Your task to perform on an android device: install app "Spotify: Music and Podcasts" Image 0: 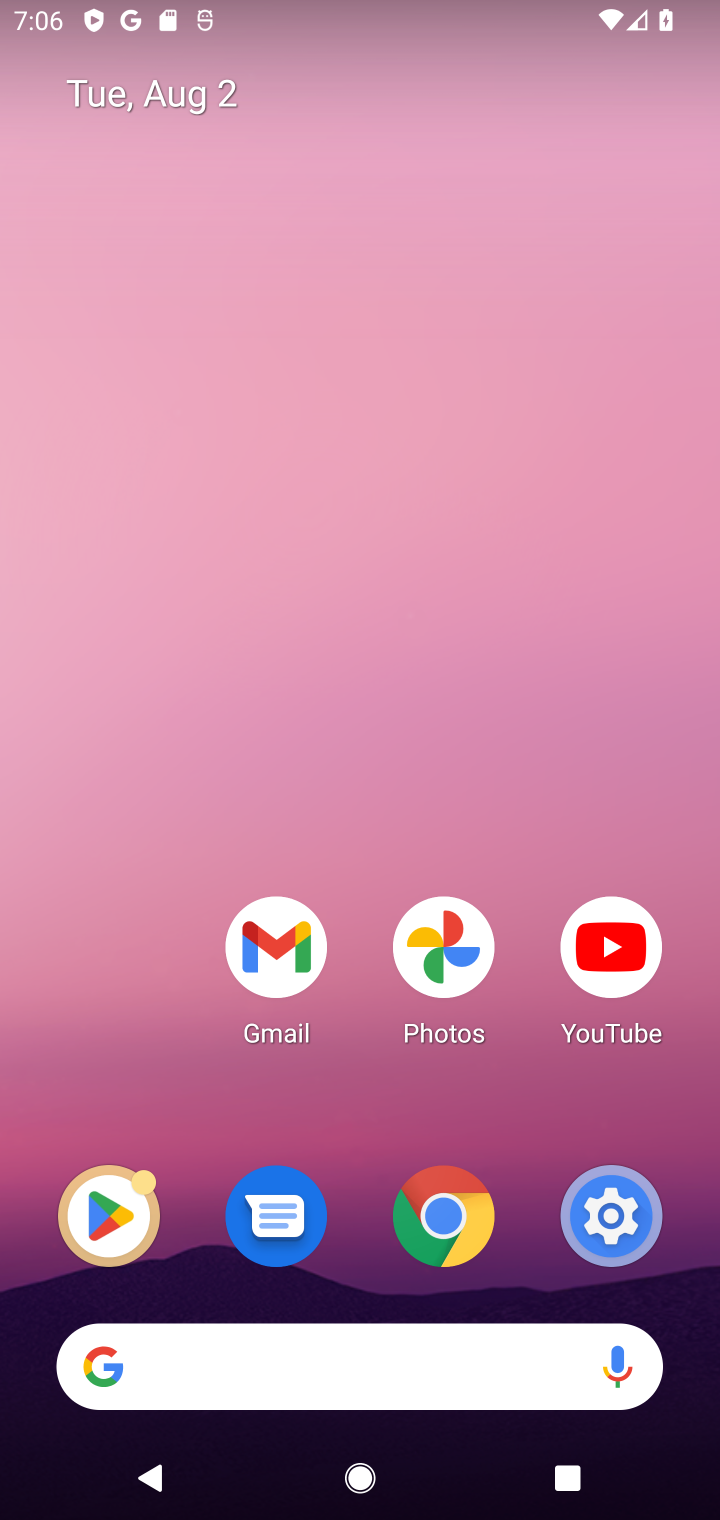
Step 0: drag from (447, 1295) to (346, 149)
Your task to perform on an android device: install app "Spotify: Music and Podcasts" Image 1: 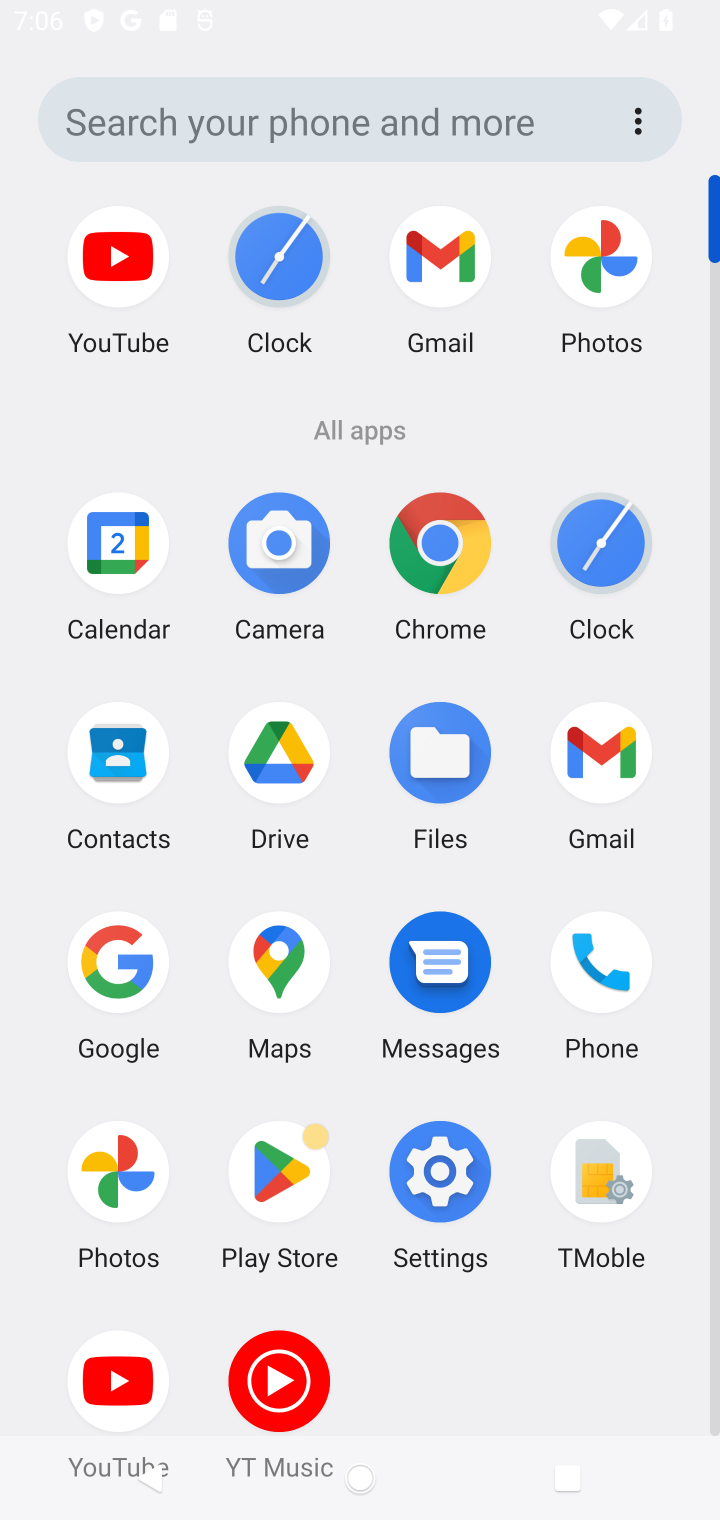
Step 1: drag from (262, 1101) to (272, 241)
Your task to perform on an android device: install app "Spotify: Music and Podcasts" Image 2: 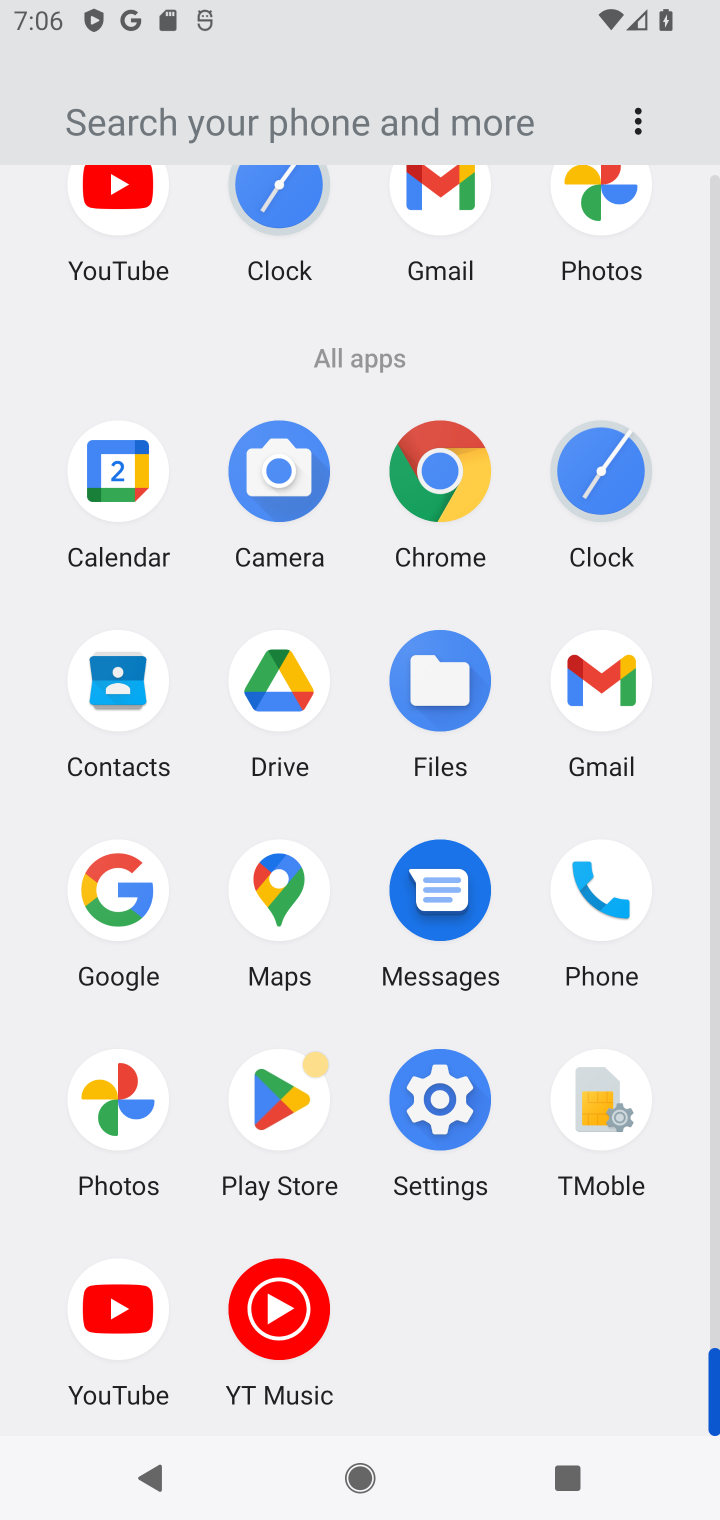
Step 2: click (313, 1106)
Your task to perform on an android device: install app "Spotify: Music and Podcasts" Image 3: 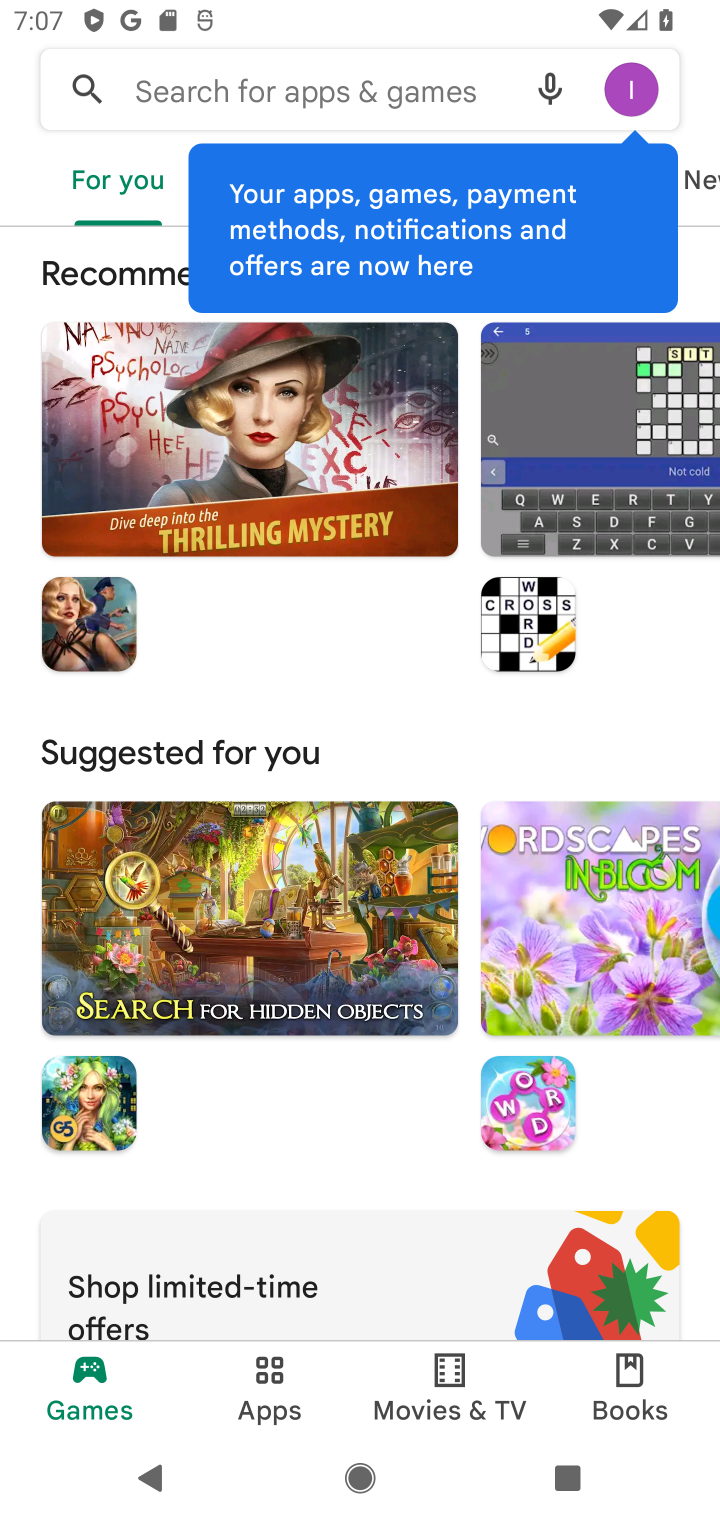
Step 3: click (165, 94)
Your task to perform on an android device: install app "Spotify: Music and Podcasts" Image 4: 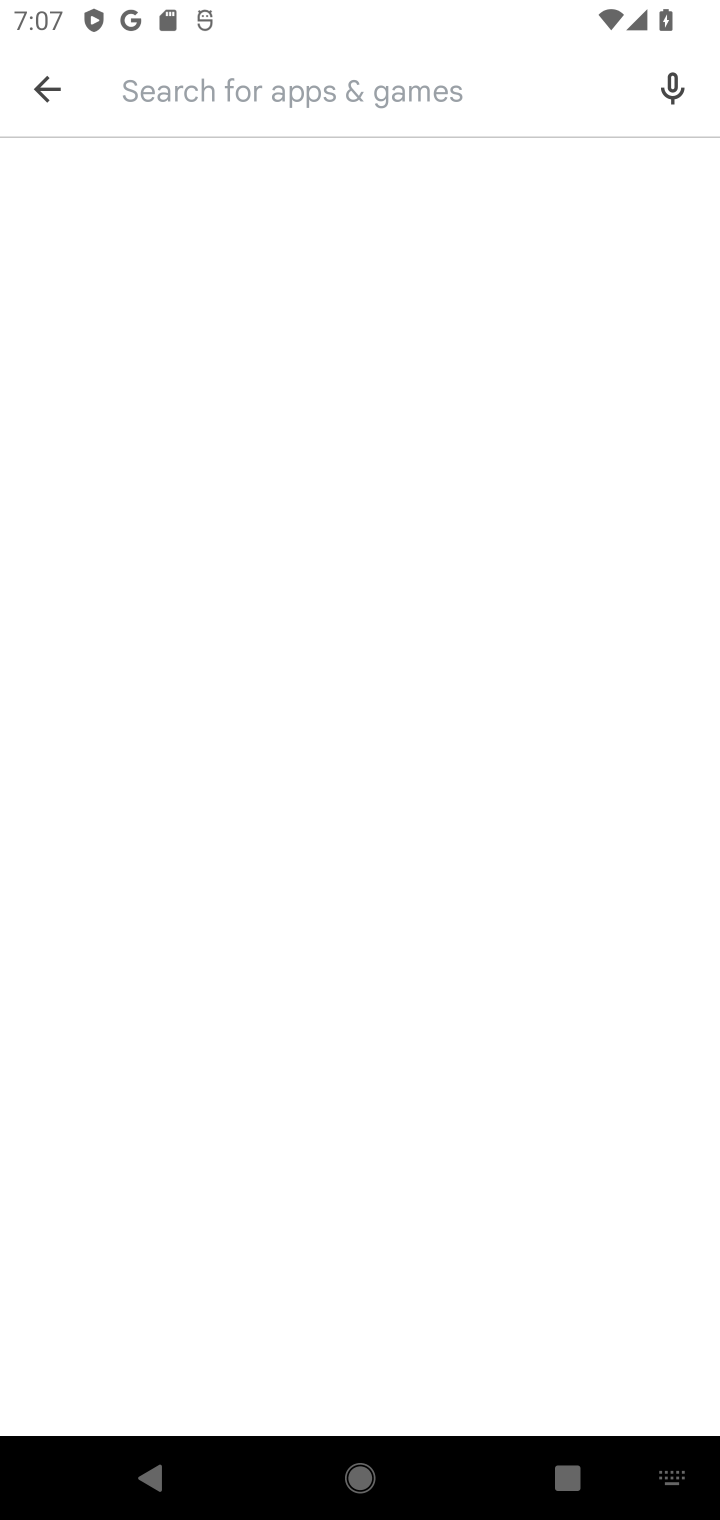
Step 4: type "Spotify: Music and Podcasts"
Your task to perform on an android device: install app "Spotify: Music and Podcasts" Image 5: 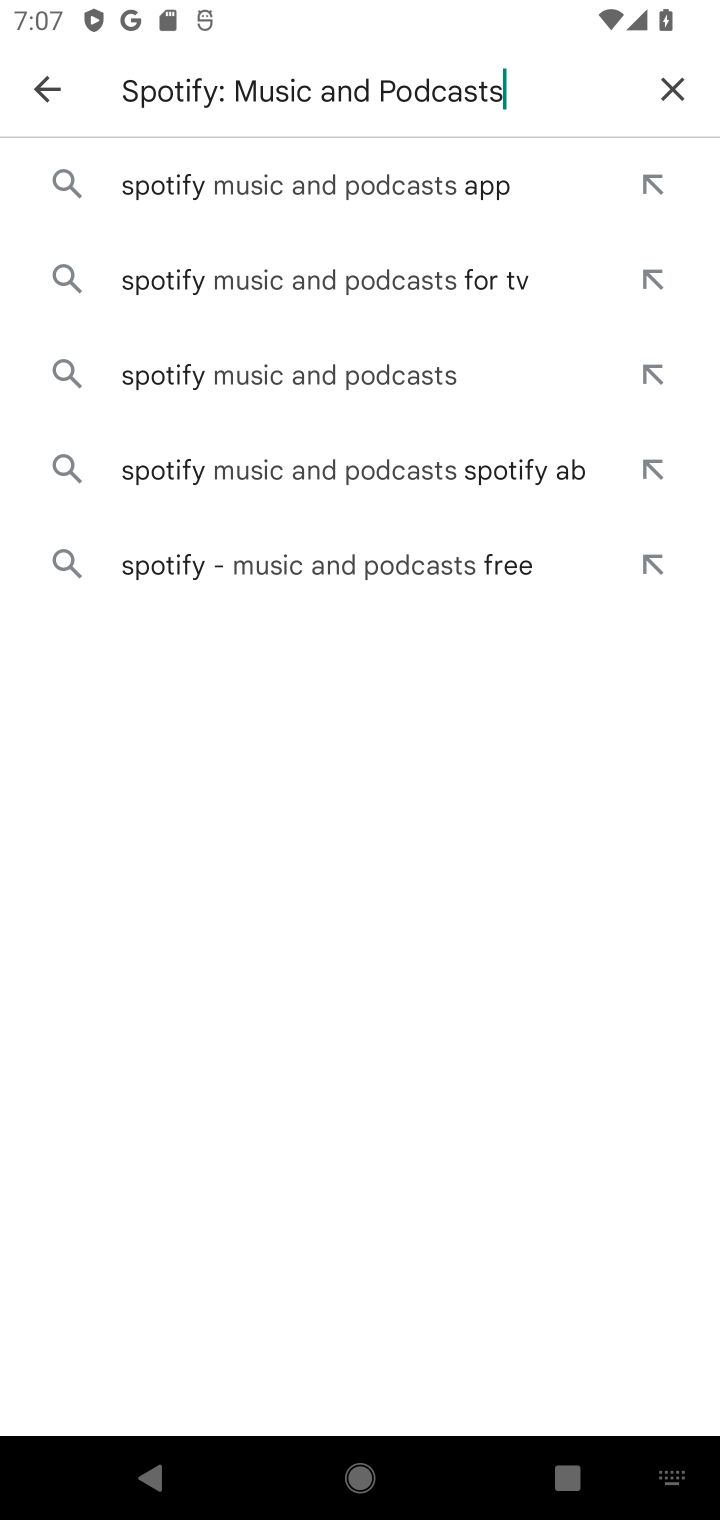
Step 5: click (371, 191)
Your task to perform on an android device: install app "Spotify: Music and Podcasts" Image 6: 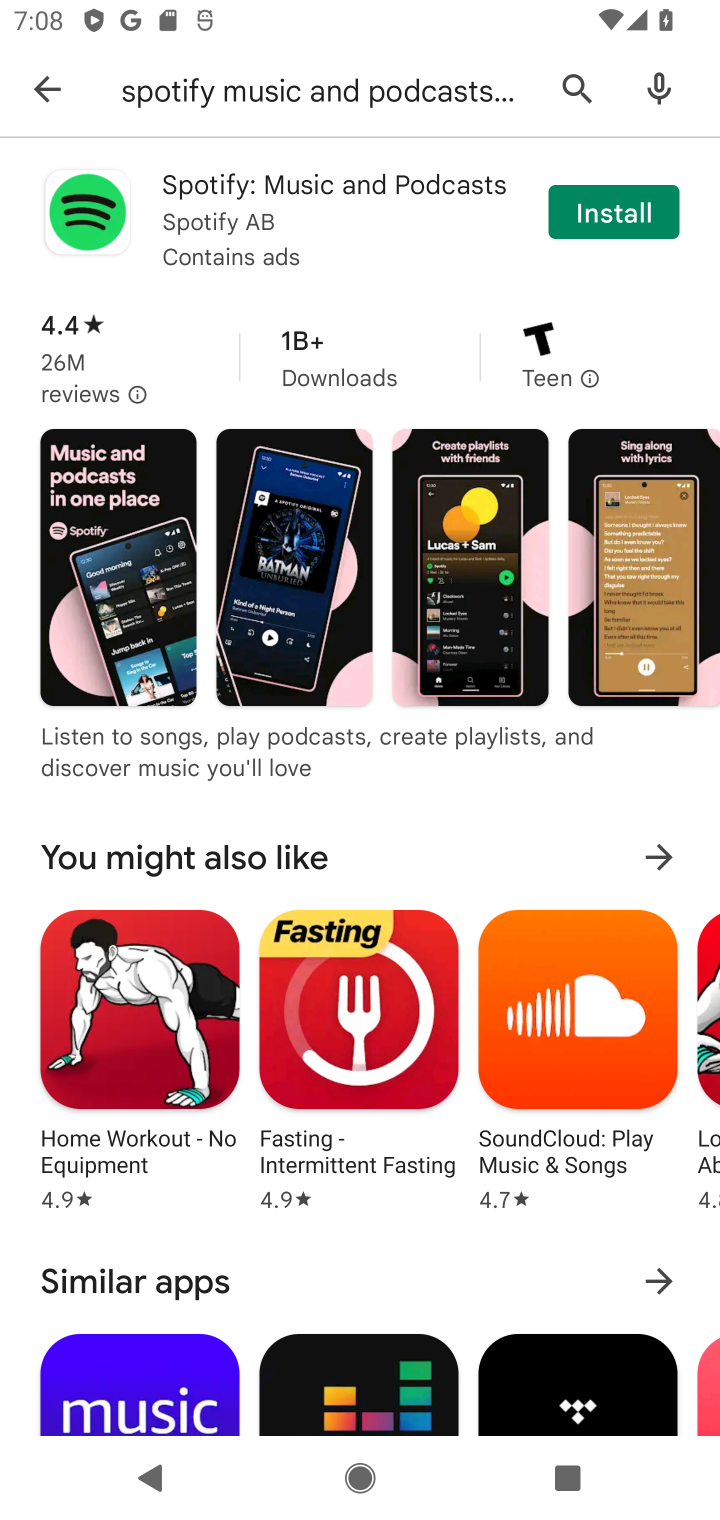
Step 6: click (621, 205)
Your task to perform on an android device: install app "Spotify: Music and Podcasts" Image 7: 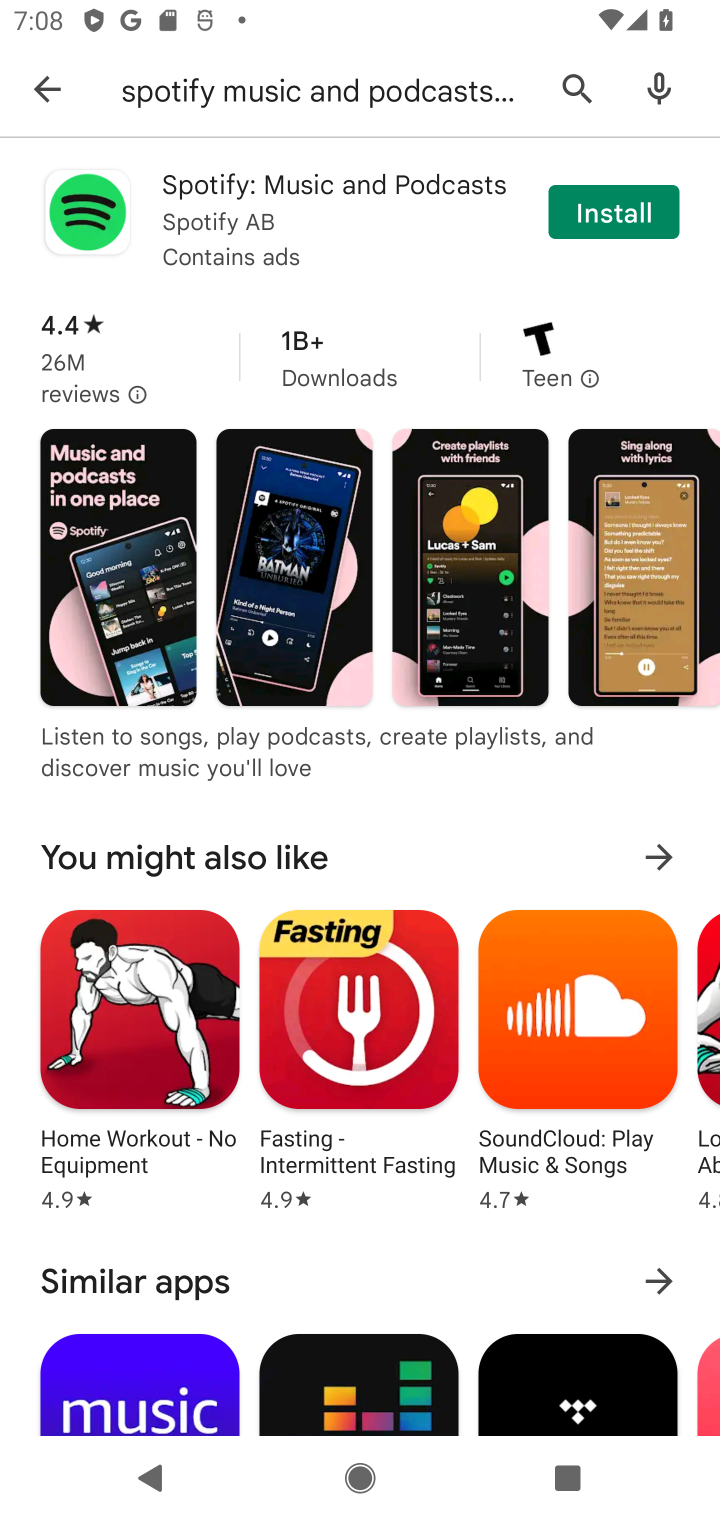
Step 7: click (636, 212)
Your task to perform on an android device: install app "Spotify: Music and Podcasts" Image 8: 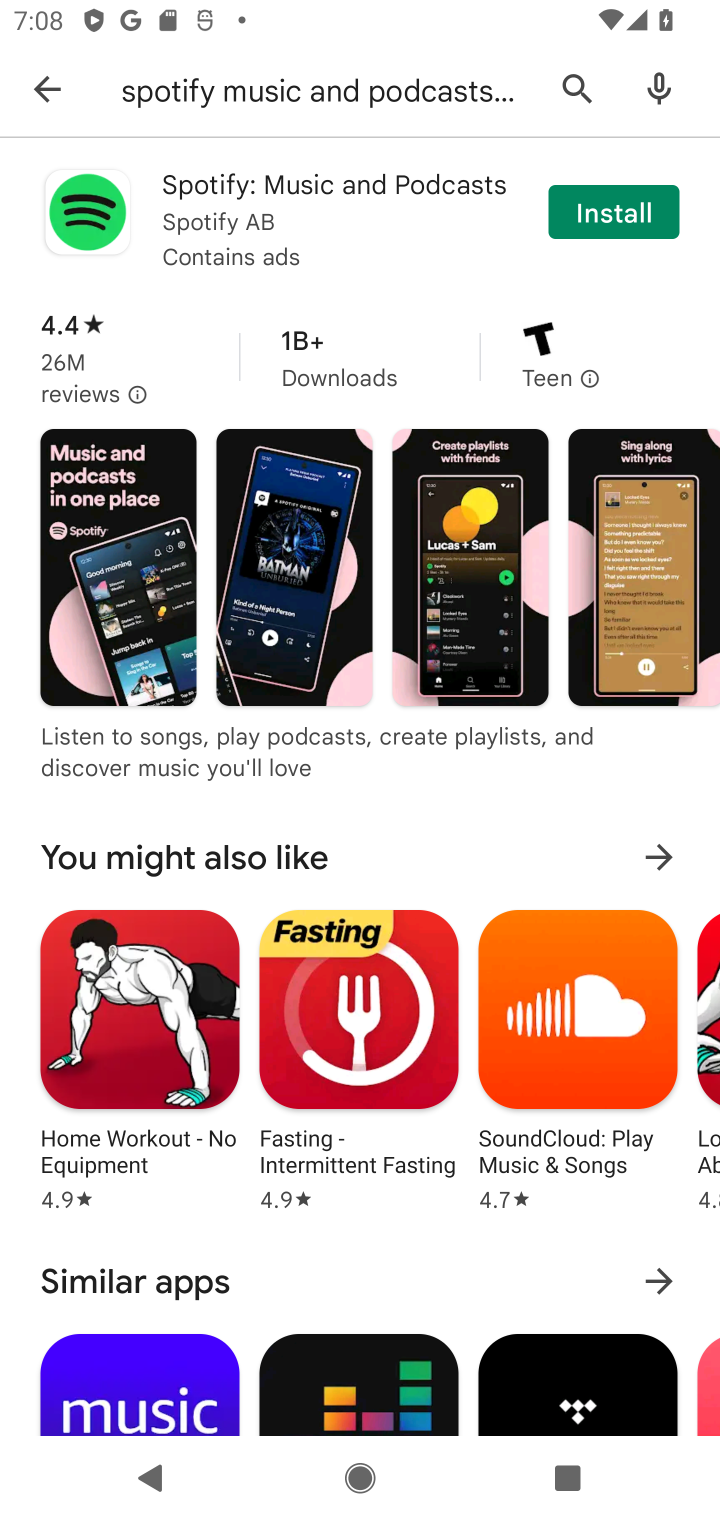
Step 8: click (605, 213)
Your task to perform on an android device: install app "Spotify: Music and Podcasts" Image 9: 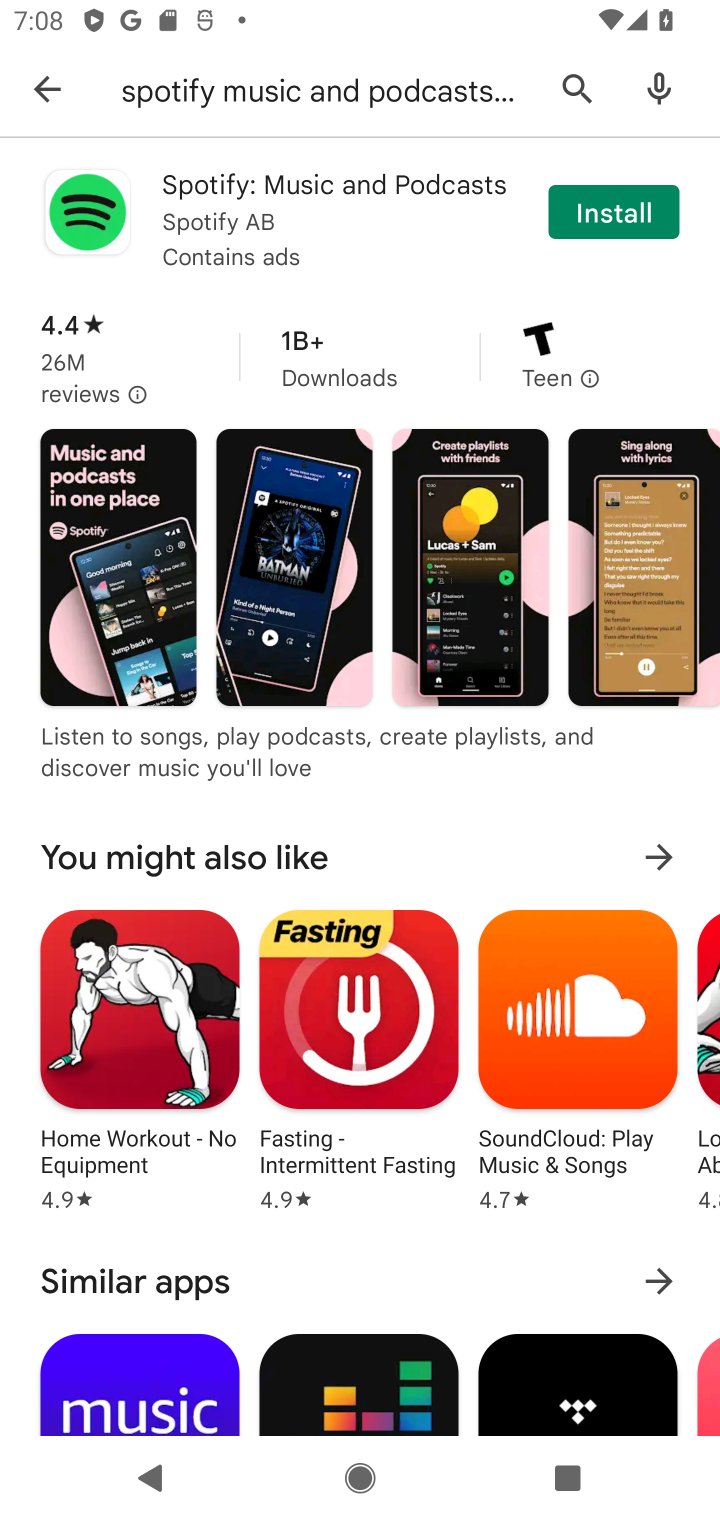
Step 9: task complete